Your task to perform on an android device: Go to Google maps Image 0: 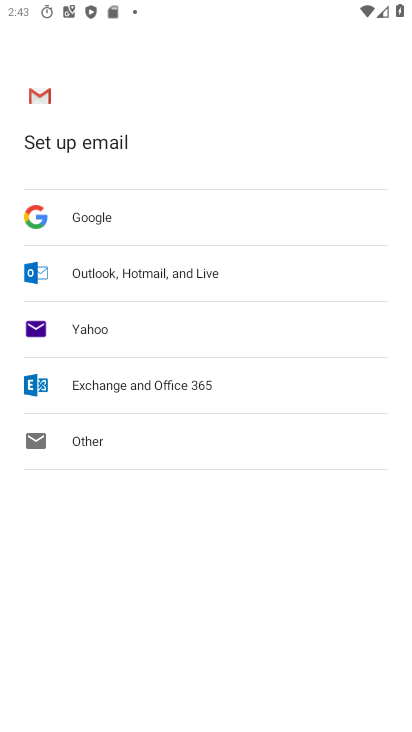
Step 0: press home button
Your task to perform on an android device: Go to Google maps Image 1: 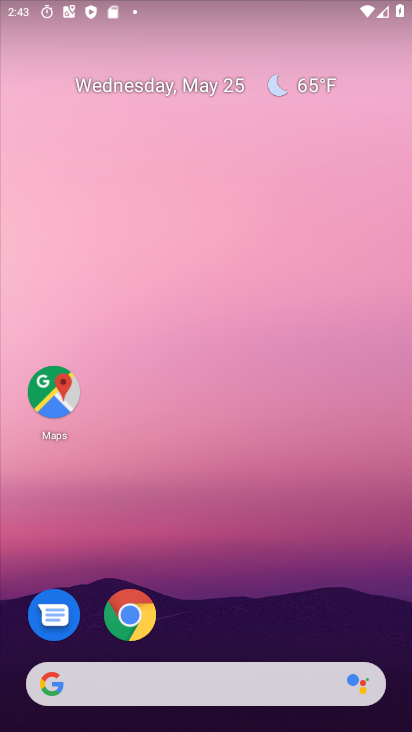
Step 1: click (65, 389)
Your task to perform on an android device: Go to Google maps Image 2: 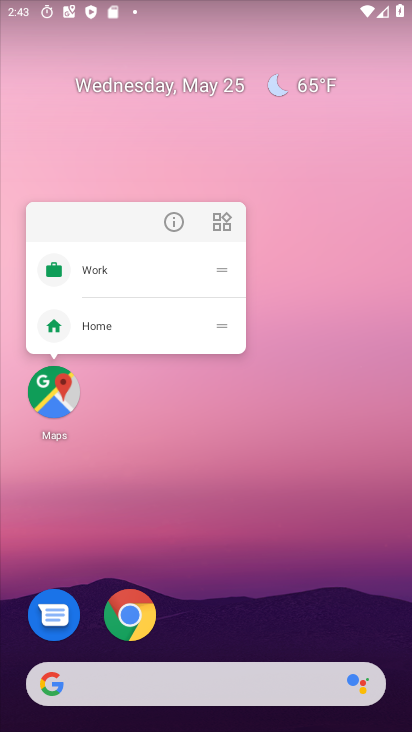
Step 2: click (34, 402)
Your task to perform on an android device: Go to Google maps Image 3: 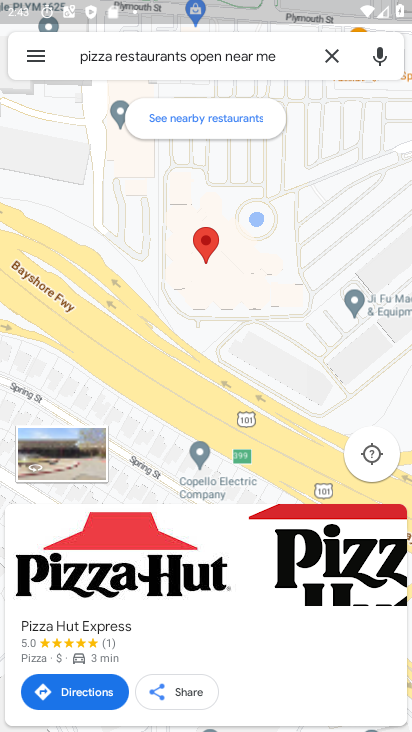
Step 3: task complete